Your task to perform on an android device: turn off javascript in the chrome app Image 0: 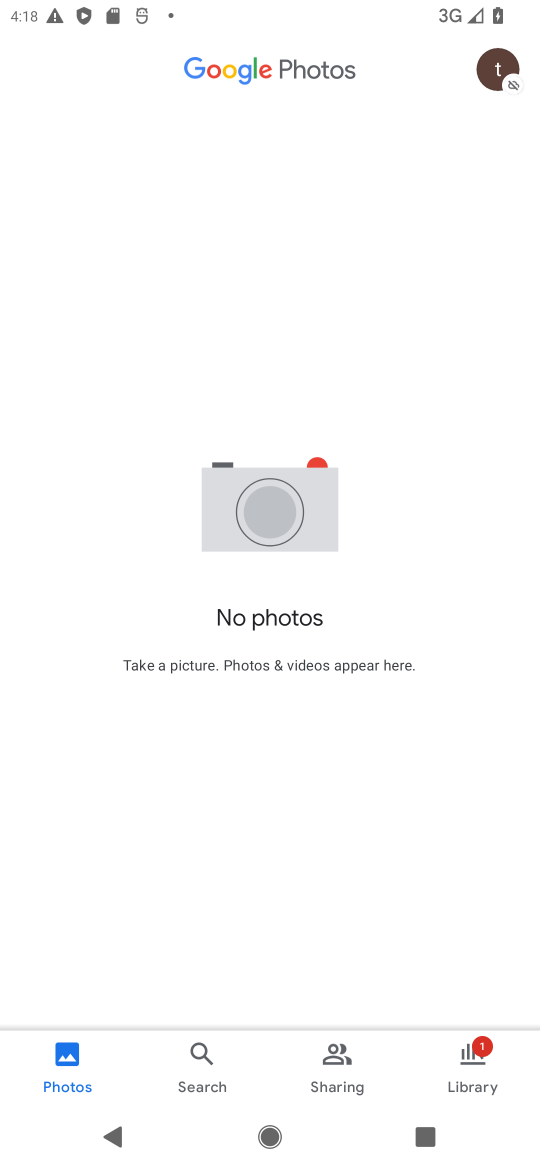
Step 0: press home button
Your task to perform on an android device: turn off javascript in the chrome app Image 1: 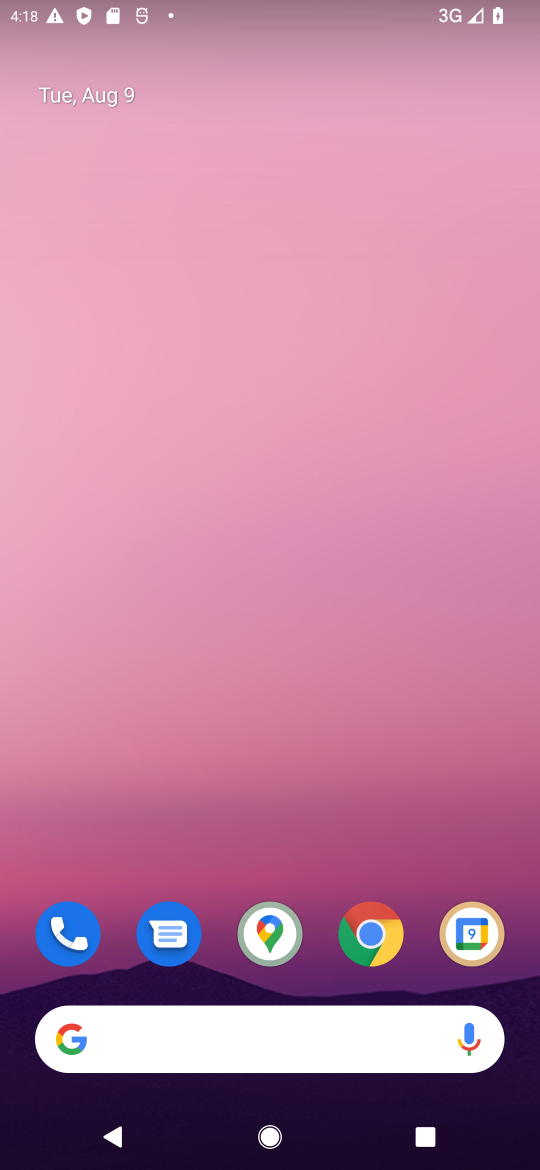
Step 1: click (375, 936)
Your task to perform on an android device: turn off javascript in the chrome app Image 2: 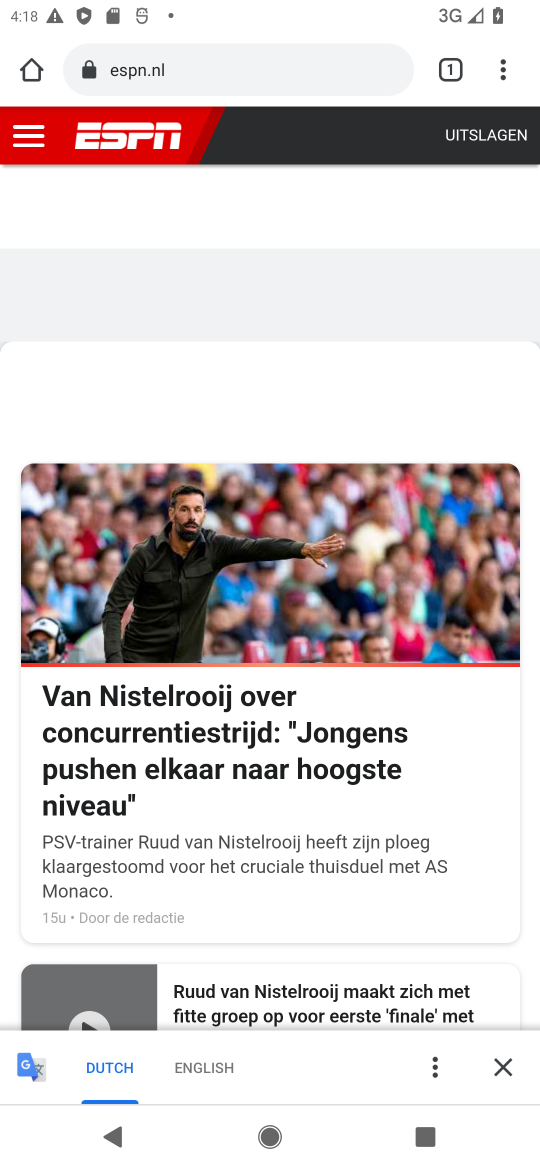
Step 2: click (508, 69)
Your task to perform on an android device: turn off javascript in the chrome app Image 3: 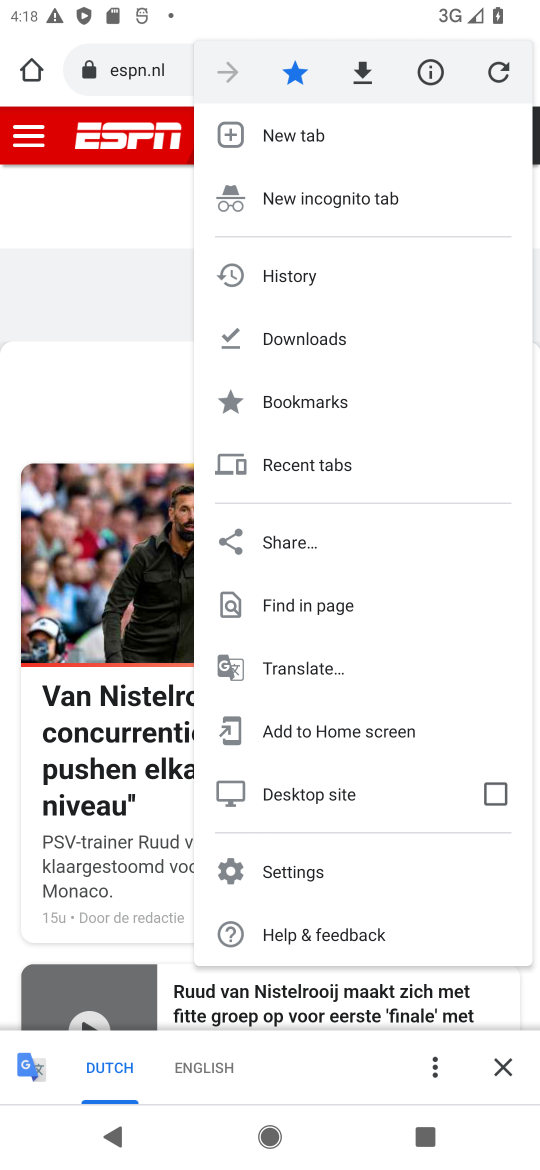
Step 3: click (301, 874)
Your task to perform on an android device: turn off javascript in the chrome app Image 4: 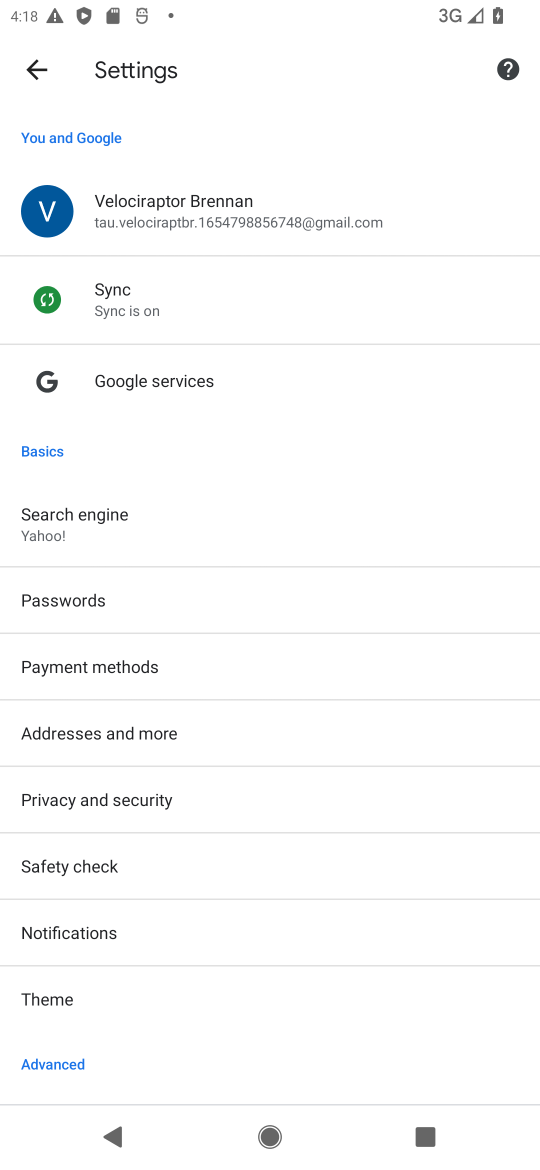
Step 4: drag from (176, 881) to (178, 371)
Your task to perform on an android device: turn off javascript in the chrome app Image 5: 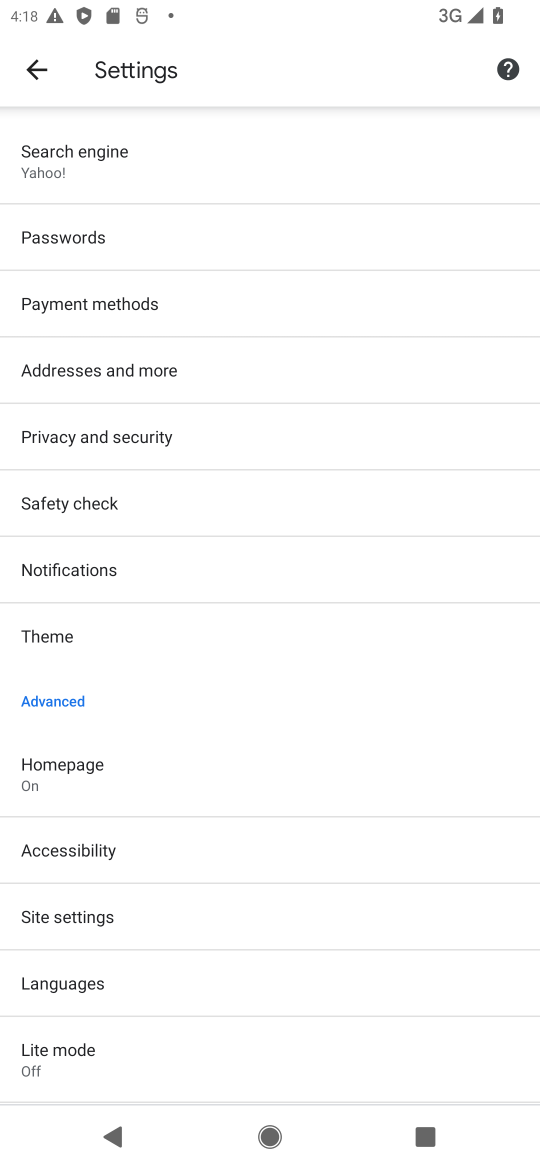
Step 5: click (151, 935)
Your task to perform on an android device: turn off javascript in the chrome app Image 6: 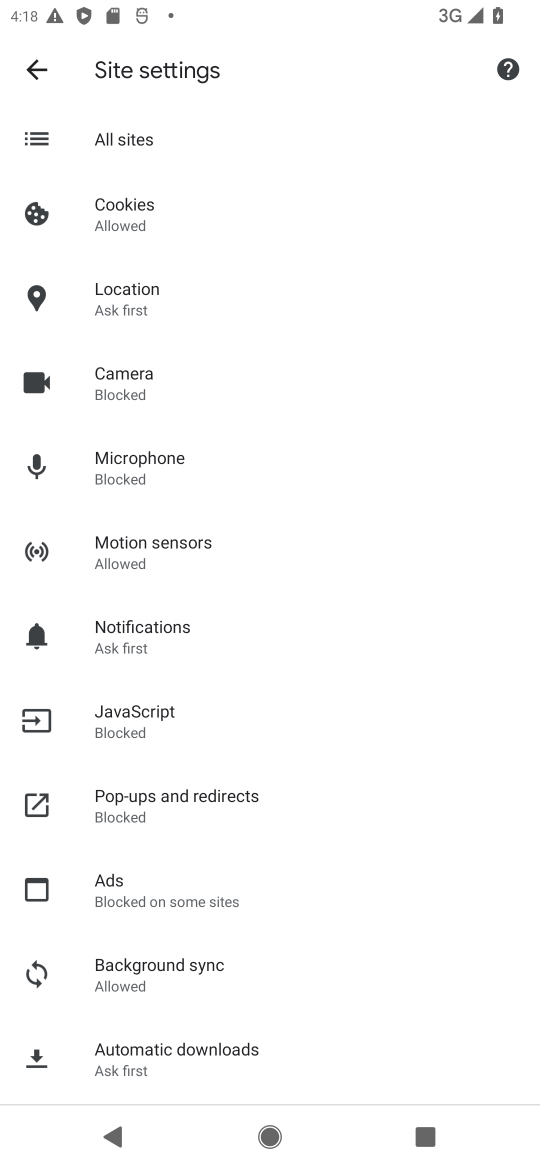
Step 6: click (186, 749)
Your task to perform on an android device: turn off javascript in the chrome app Image 7: 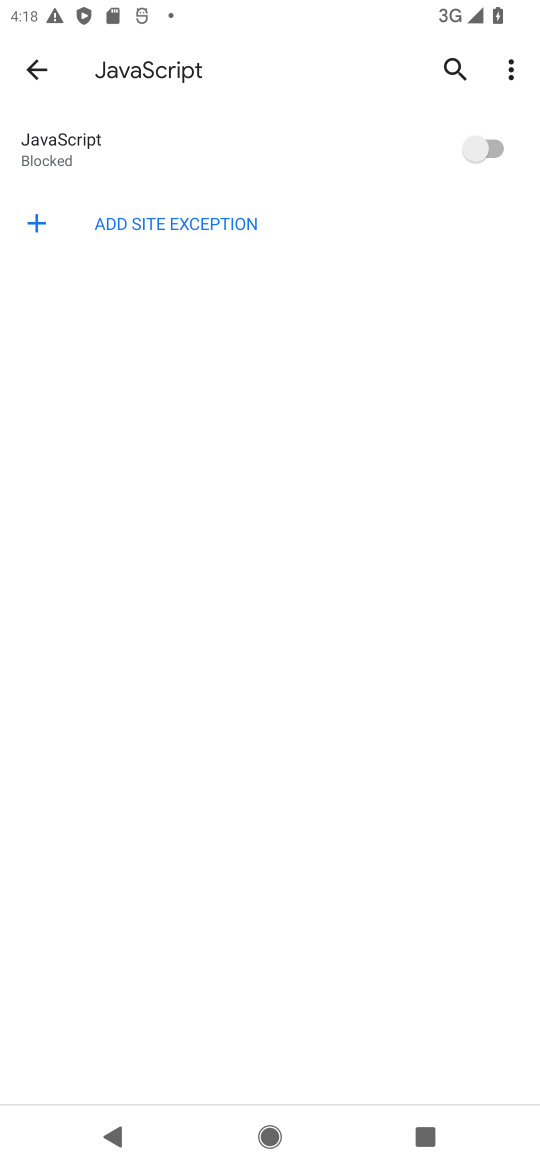
Step 7: click (473, 147)
Your task to perform on an android device: turn off javascript in the chrome app Image 8: 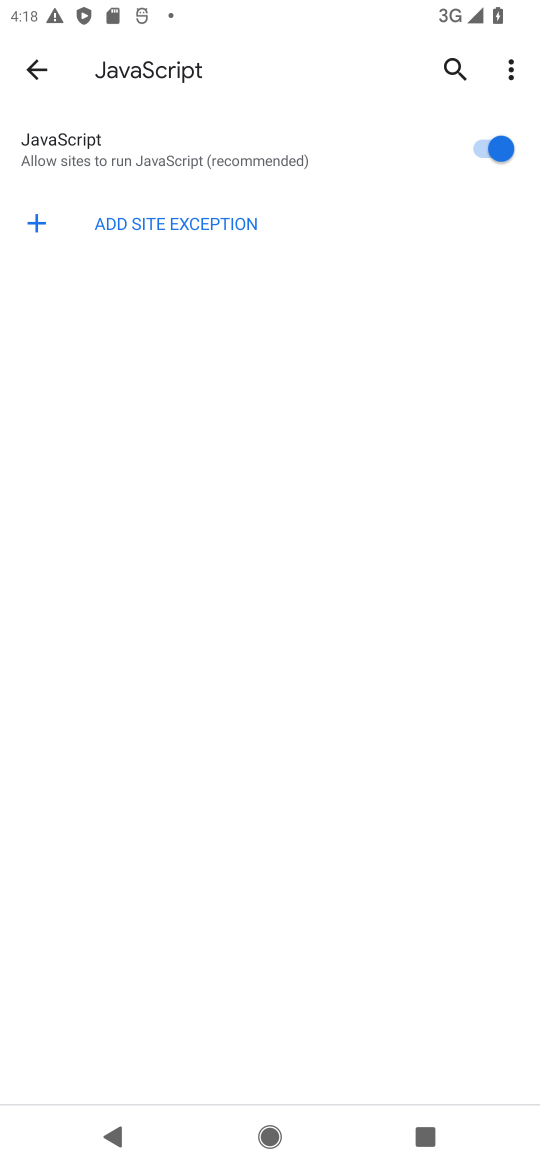
Step 8: task complete